Your task to perform on an android device: change notifications settings Image 0: 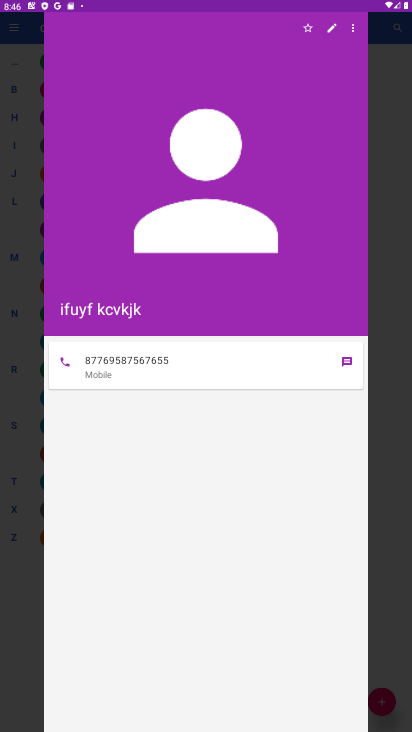
Step 0: task complete